Your task to perform on an android device: Go to CNN.com Image 0: 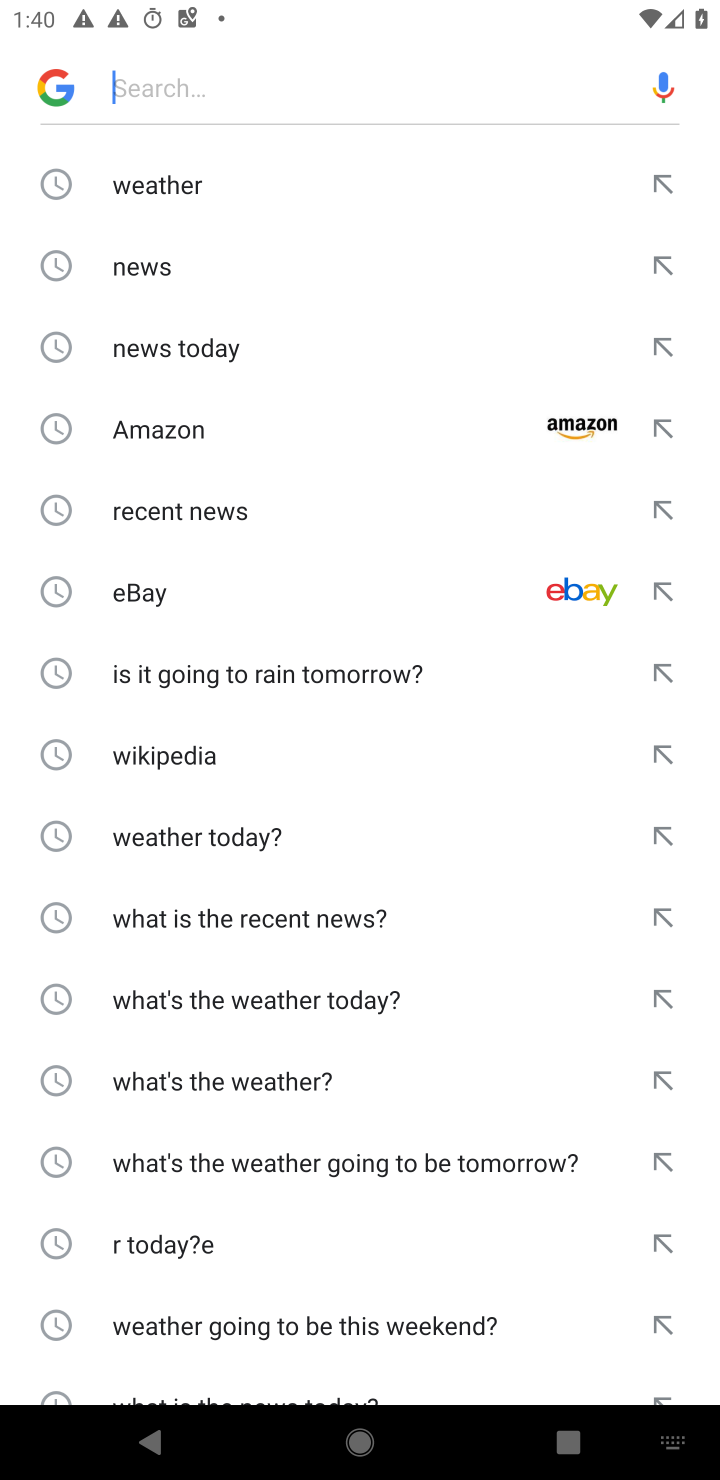
Step 0: press home button
Your task to perform on an android device: Go to CNN.com Image 1: 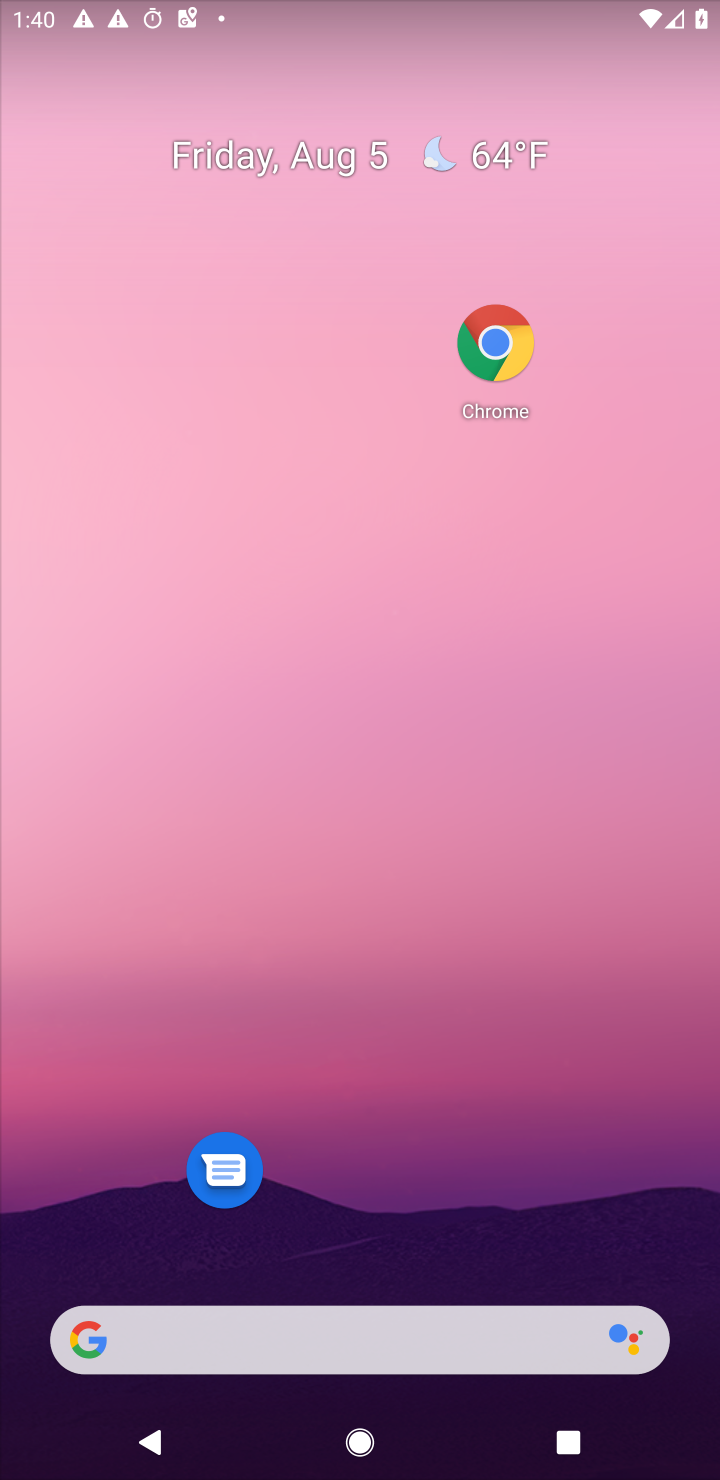
Step 1: drag from (434, 1237) to (294, 178)
Your task to perform on an android device: Go to CNN.com Image 2: 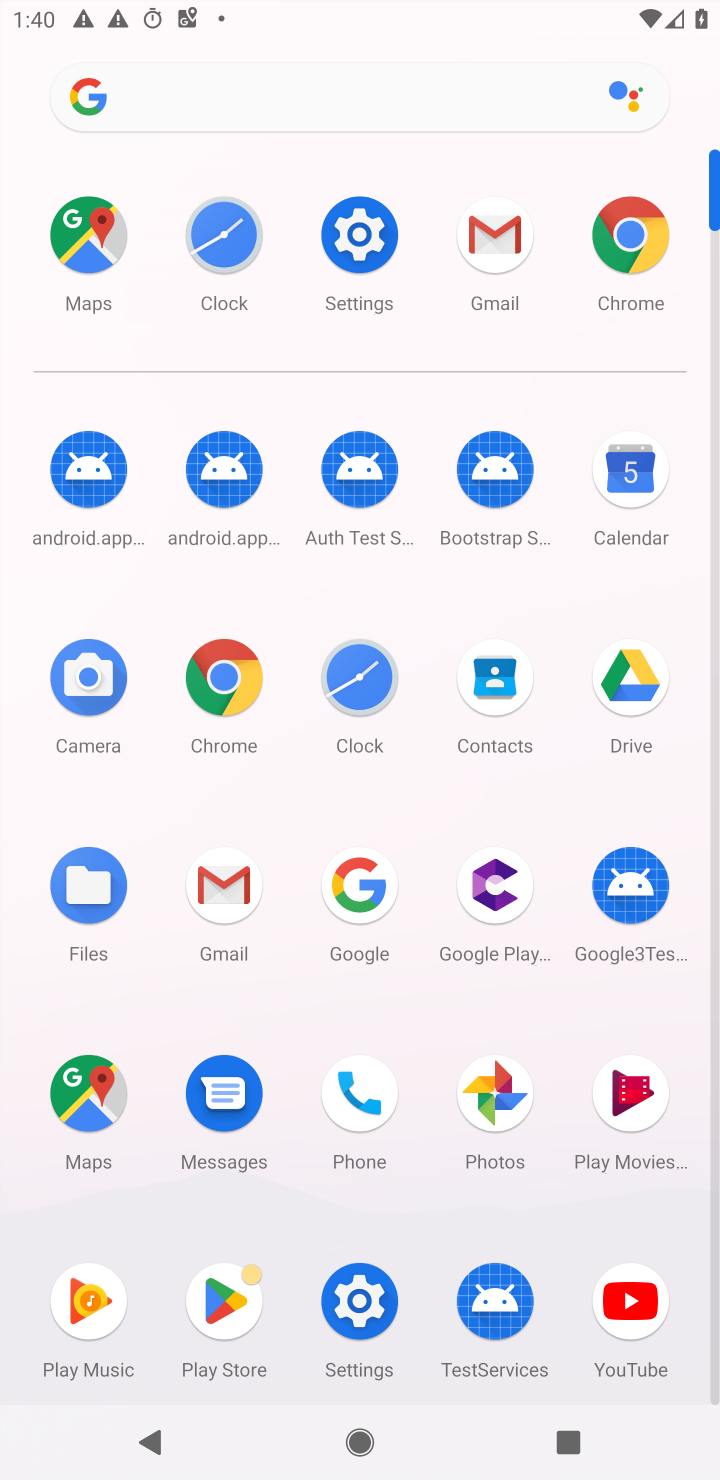
Step 2: click (236, 688)
Your task to perform on an android device: Go to CNN.com Image 3: 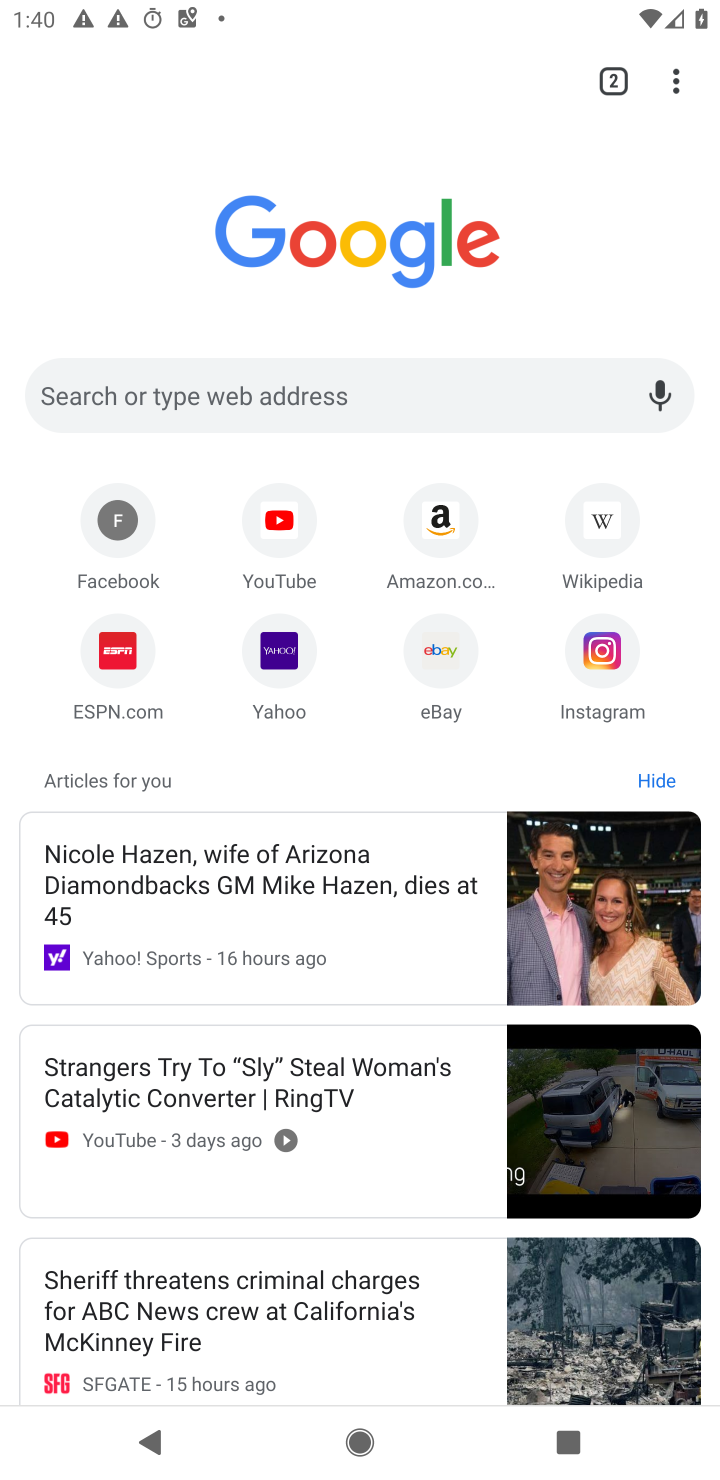
Step 3: click (287, 397)
Your task to perform on an android device: Go to CNN.com Image 4: 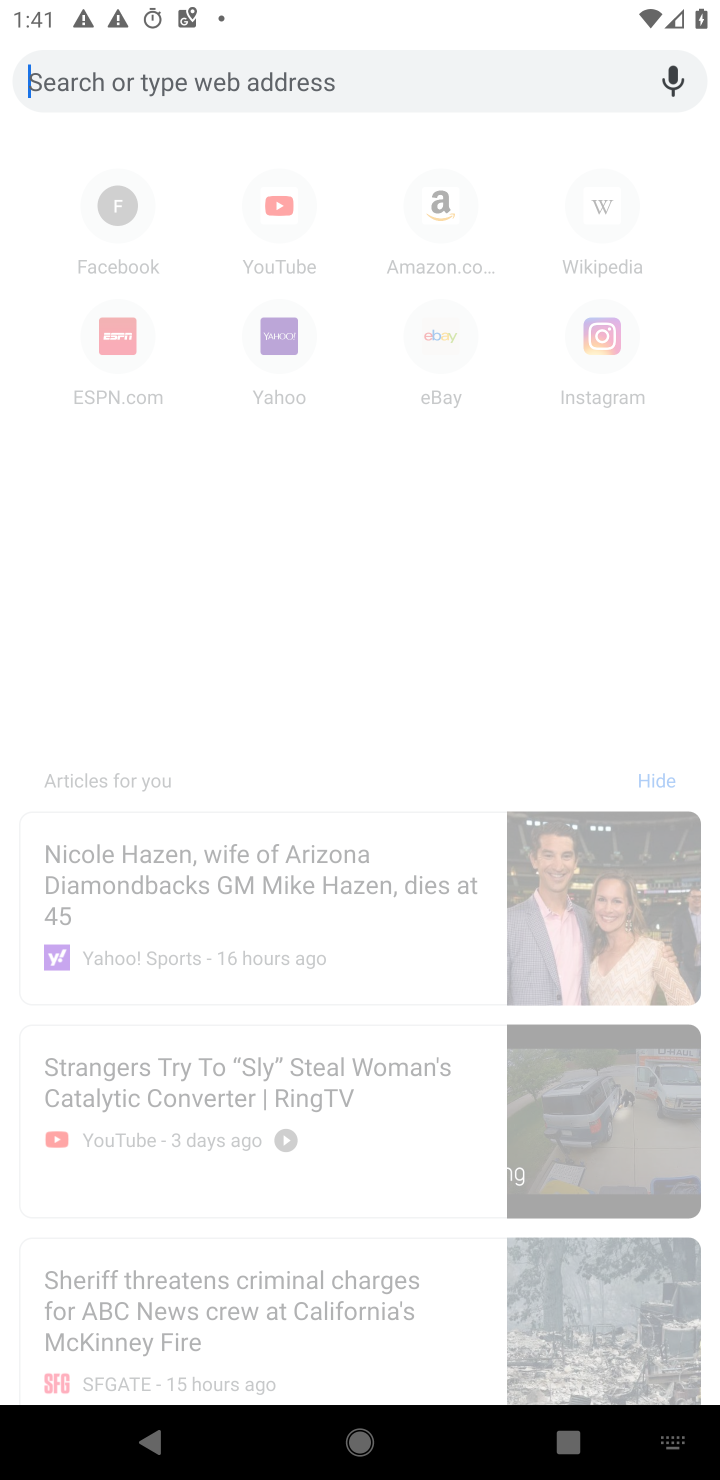
Step 4: type "CNN.com"
Your task to perform on an android device: Go to CNN.com Image 5: 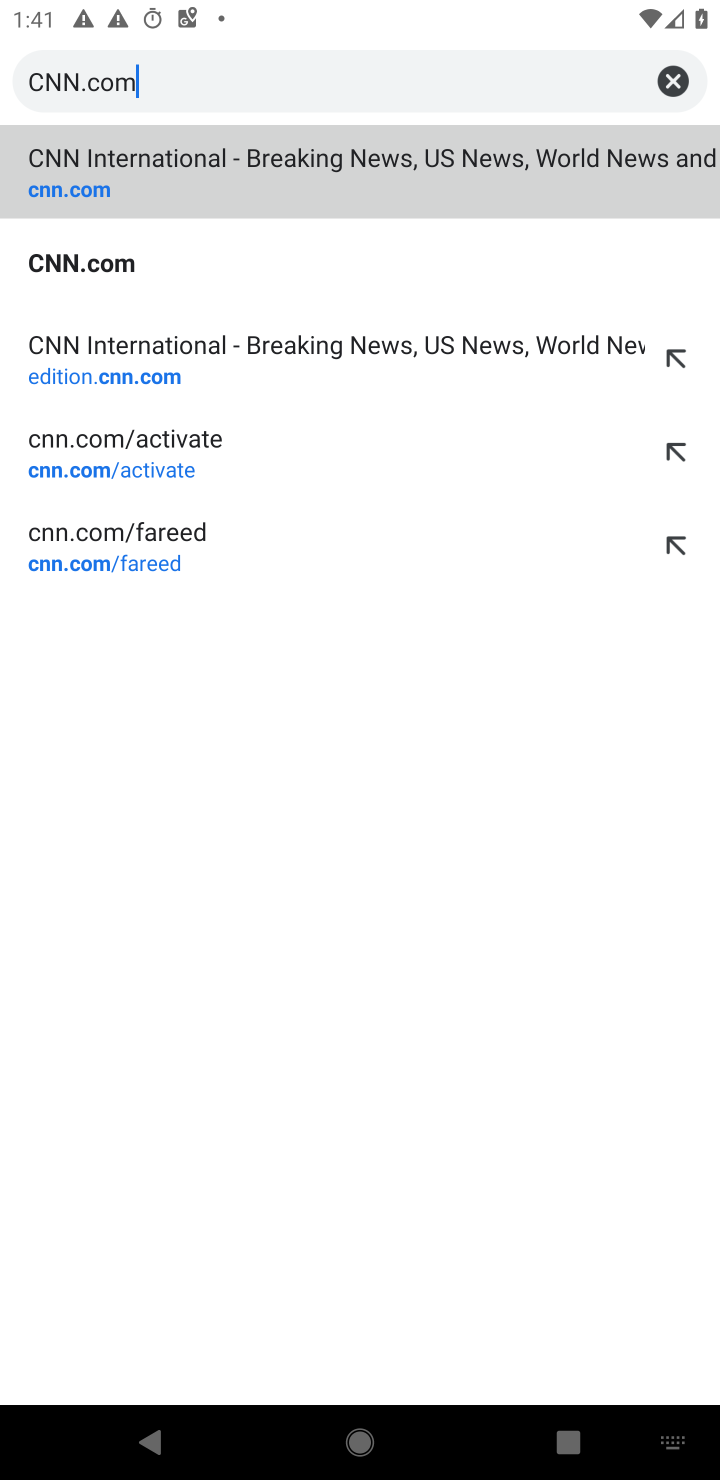
Step 5: type ""
Your task to perform on an android device: Go to CNN.com Image 6: 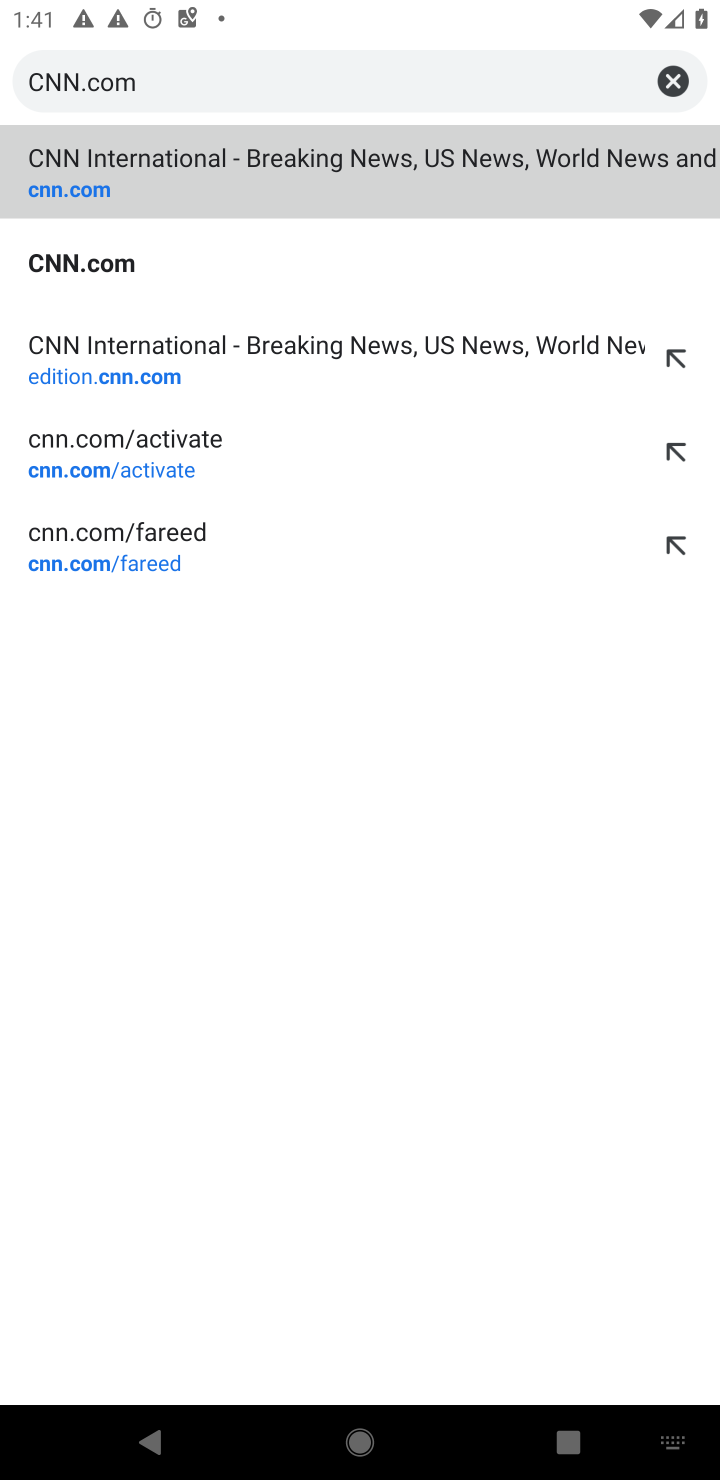
Step 6: click (220, 67)
Your task to perform on an android device: Go to CNN.com Image 7: 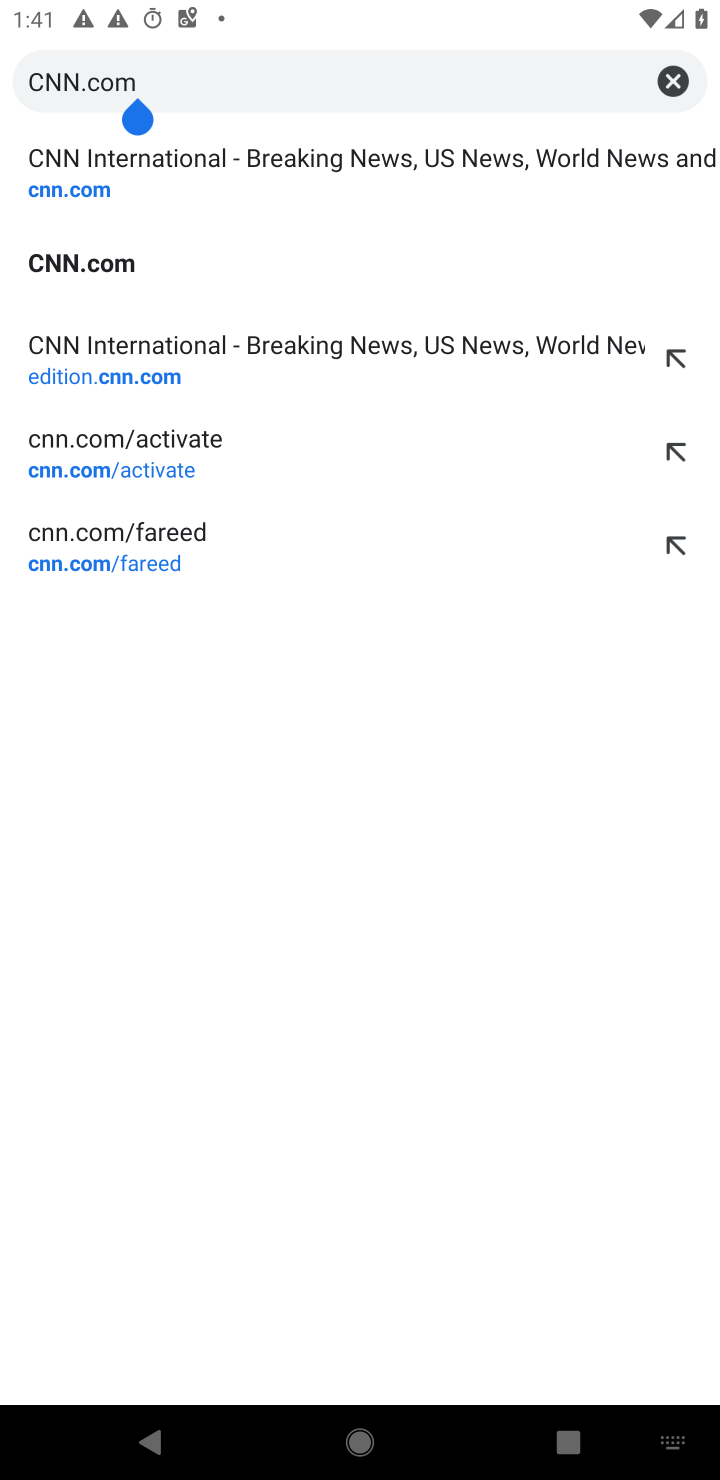
Step 7: click (290, 166)
Your task to perform on an android device: Go to CNN.com Image 8: 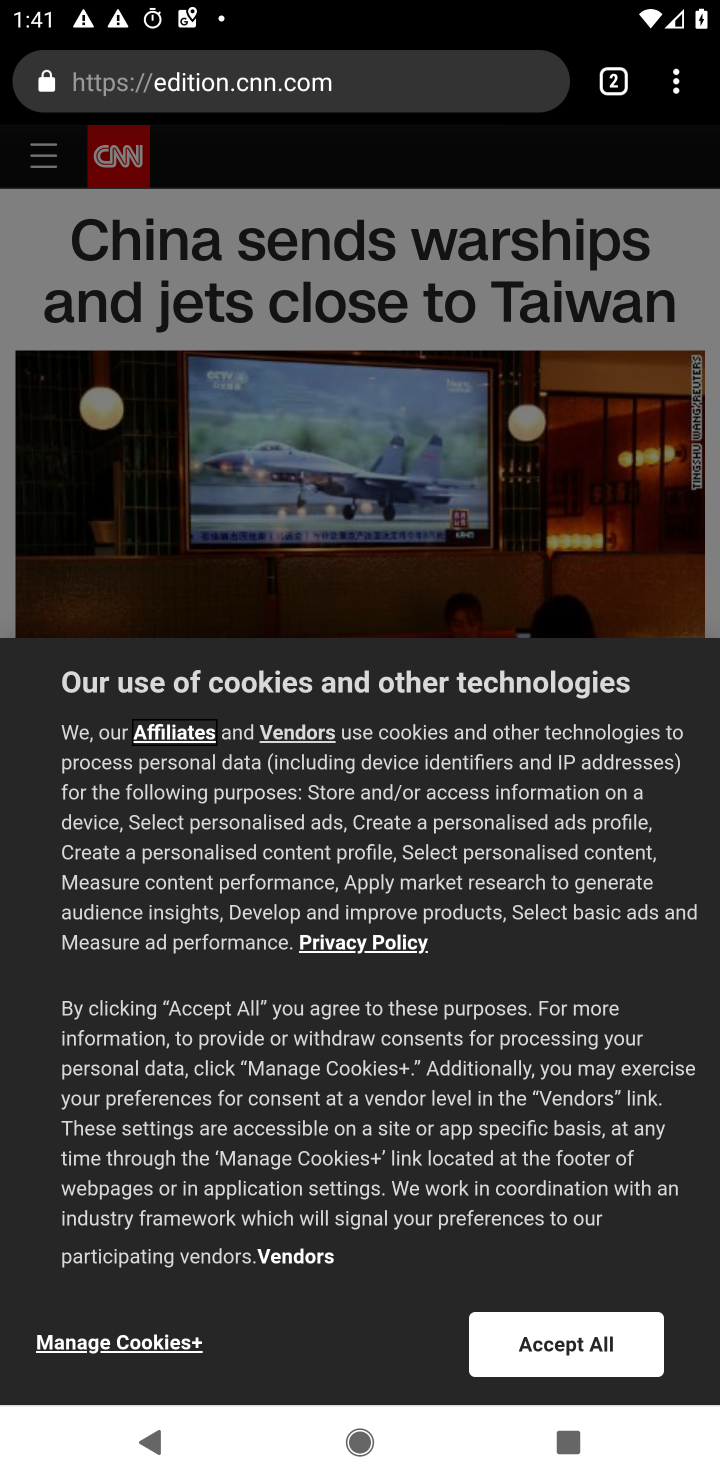
Step 8: task complete